Your task to perform on an android device: toggle location history Image 0: 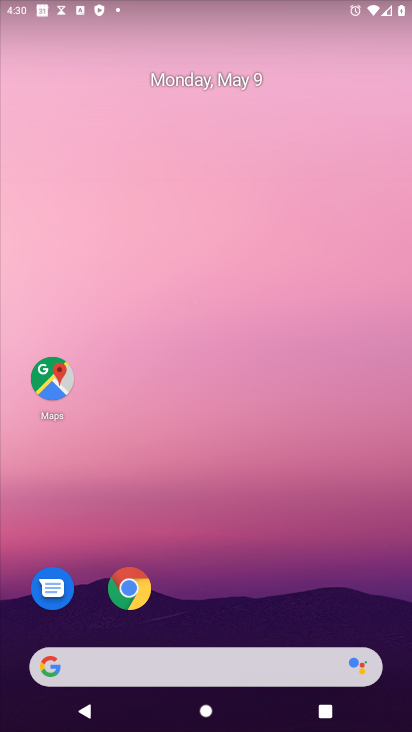
Step 0: drag from (200, 235) to (162, 135)
Your task to perform on an android device: toggle location history Image 1: 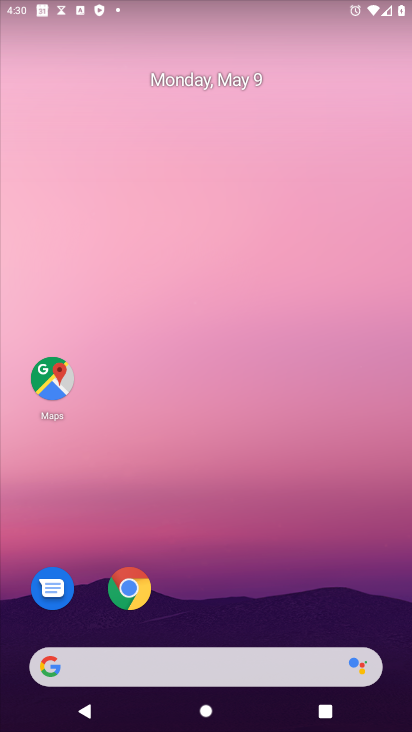
Step 1: drag from (287, 545) to (220, 23)
Your task to perform on an android device: toggle location history Image 2: 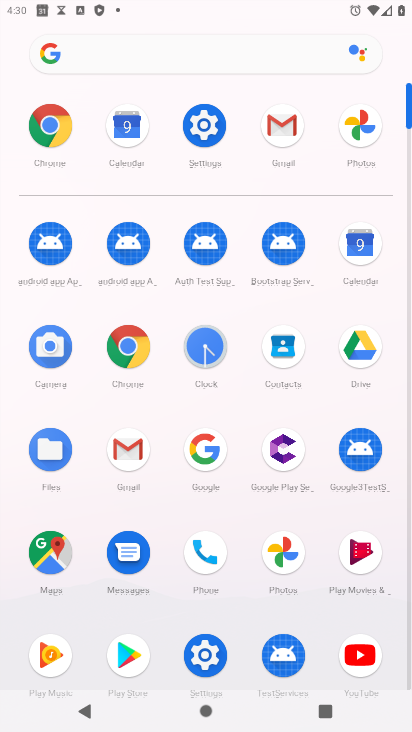
Step 2: click (207, 123)
Your task to perform on an android device: toggle location history Image 3: 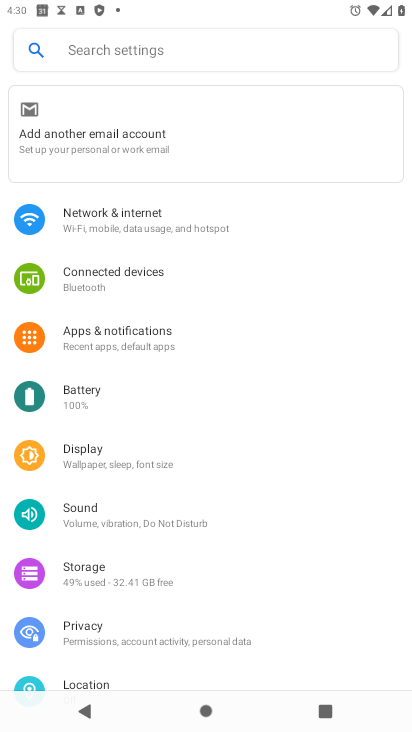
Step 3: drag from (196, 592) to (178, 213)
Your task to perform on an android device: toggle location history Image 4: 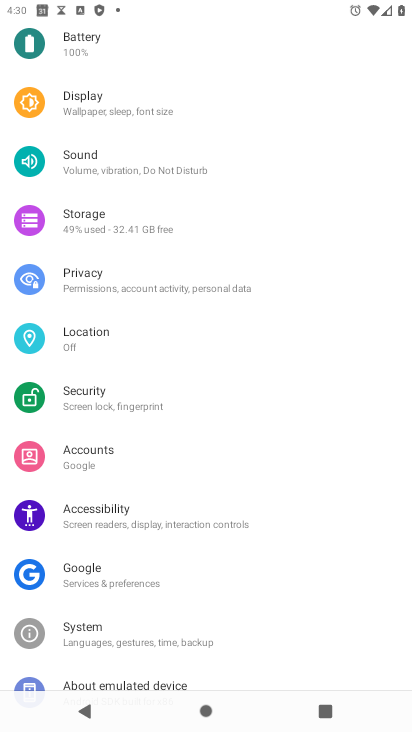
Step 4: click (119, 326)
Your task to perform on an android device: toggle location history Image 5: 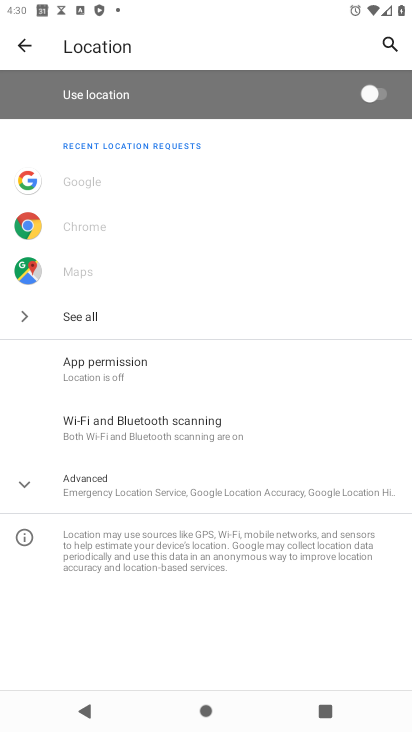
Step 5: click (151, 489)
Your task to perform on an android device: toggle location history Image 6: 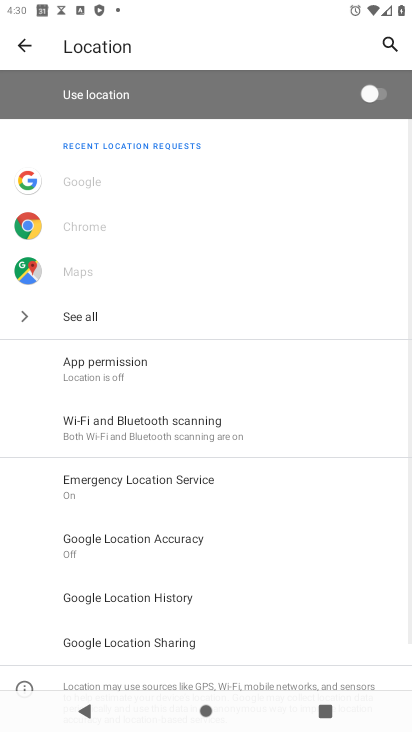
Step 6: click (192, 601)
Your task to perform on an android device: toggle location history Image 7: 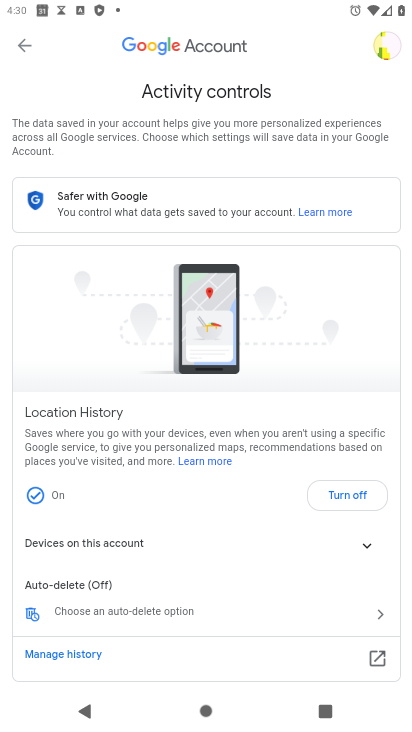
Step 7: click (346, 494)
Your task to perform on an android device: toggle location history Image 8: 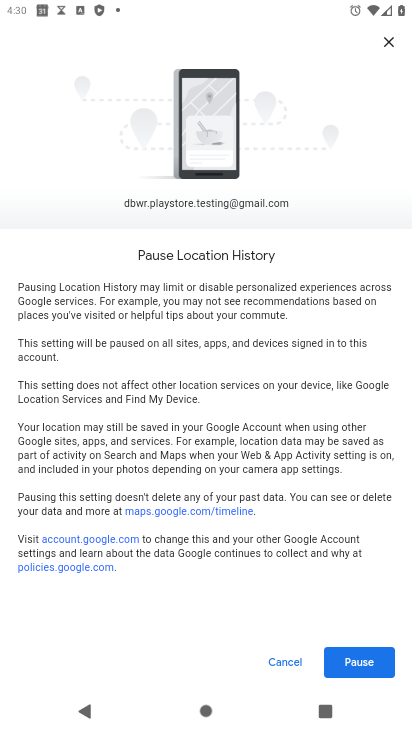
Step 8: click (361, 658)
Your task to perform on an android device: toggle location history Image 9: 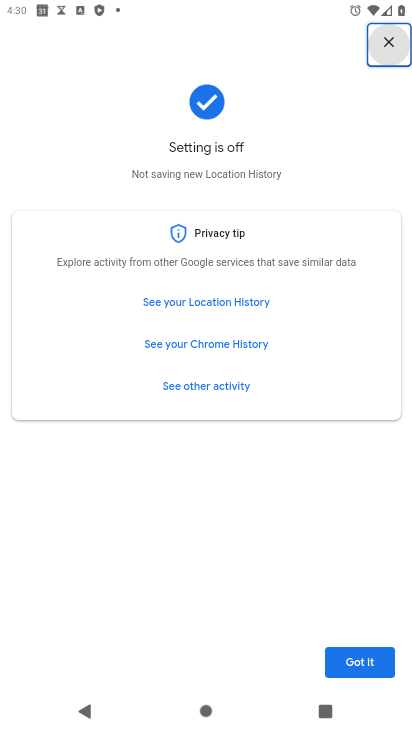
Step 9: click (353, 664)
Your task to perform on an android device: toggle location history Image 10: 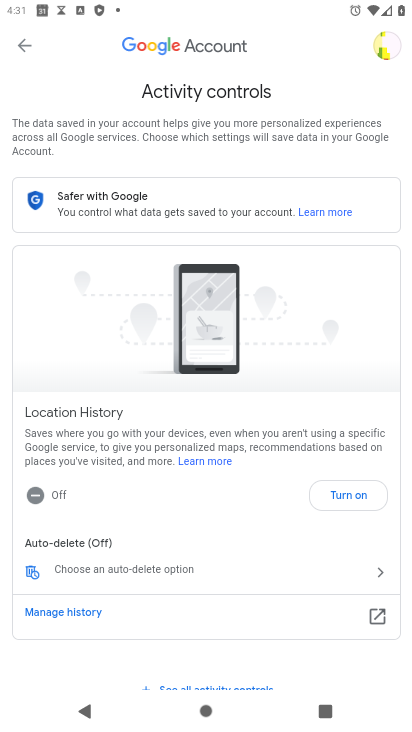
Step 10: task complete